Your task to perform on an android device: clear history in the chrome app Image 0: 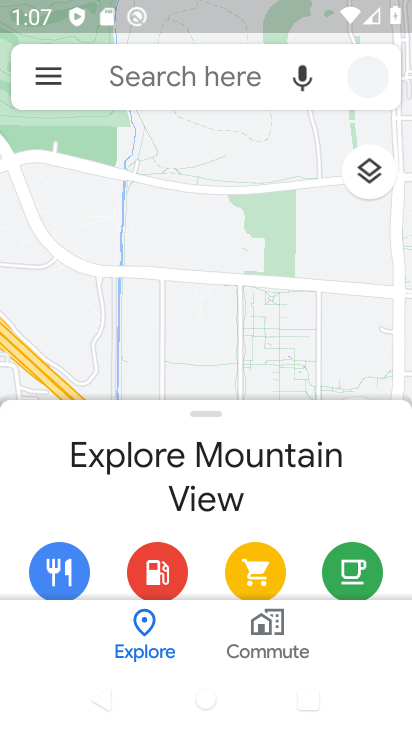
Step 0: press home button
Your task to perform on an android device: clear history in the chrome app Image 1: 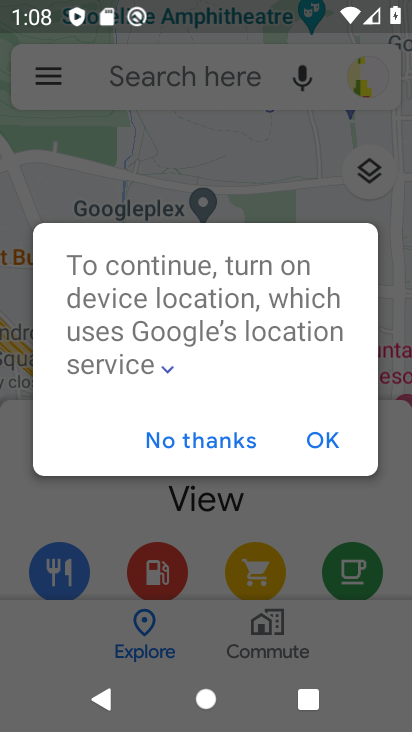
Step 1: press home button
Your task to perform on an android device: clear history in the chrome app Image 2: 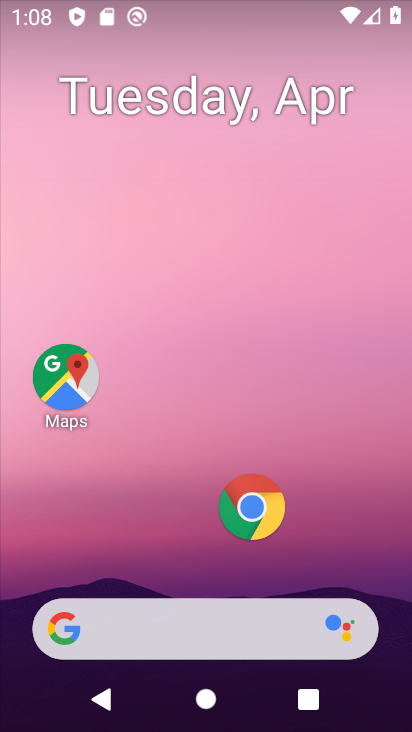
Step 2: click (259, 543)
Your task to perform on an android device: clear history in the chrome app Image 3: 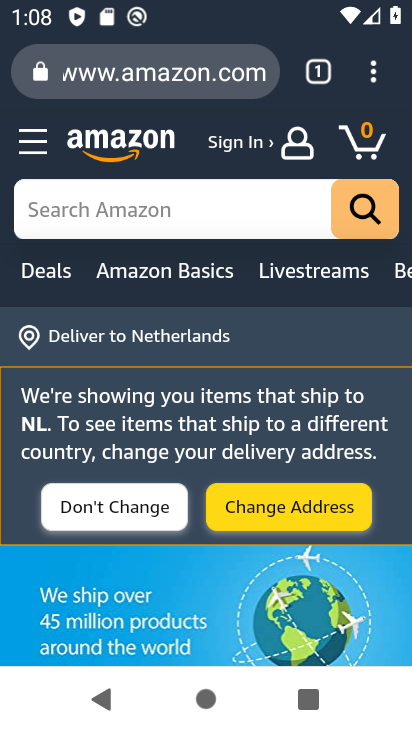
Step 3: click (371, 75)
Your task to perform on an android device: clear history in the chrome app Image 4: 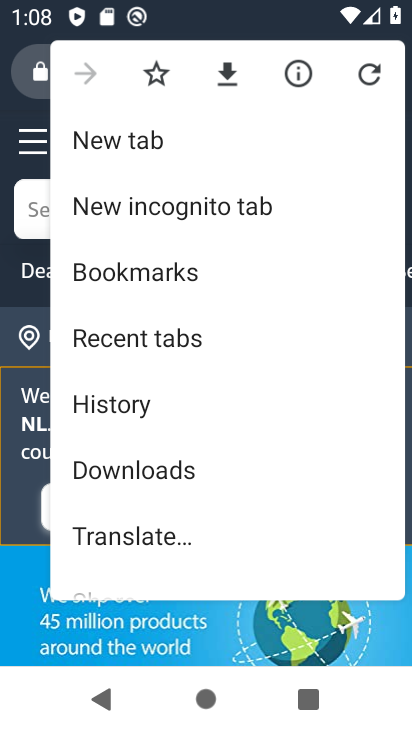
Step 4: click (136, 409)
Your task to perform on an android device: clear history in the chrome app Image 5: 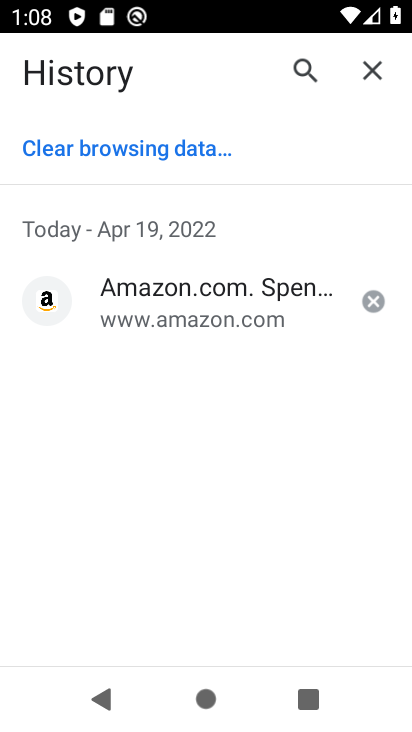
Step 5: click (159, 153)
Your task to perform on an android device: clear history in the chrome app Image 6: 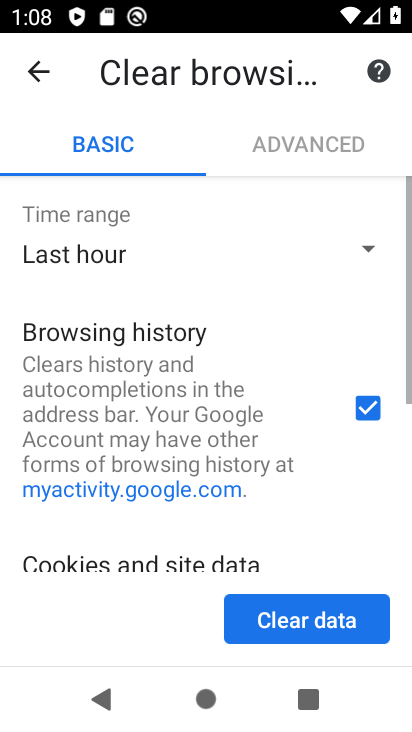
Step 6: click (292, 626)
Your task to perform on an android device: clear history in the chrome app Image 7: 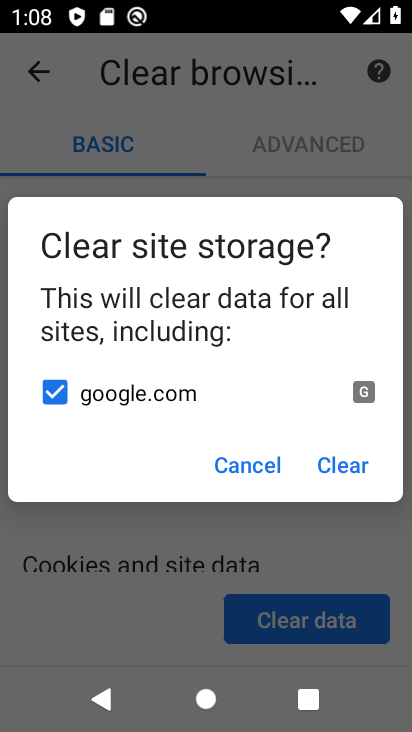
Step 7: click (336, 471)
Your task to perform on an android device: clear history in the chrome app Image 8: 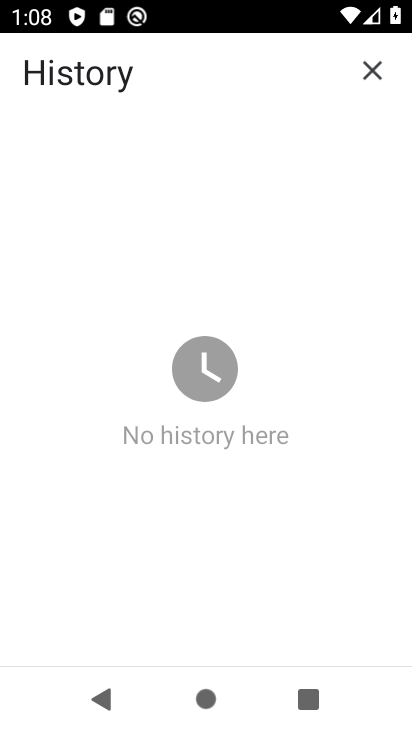
Step 8: task complete